Your task to perform on an android device: check storage Image 0: 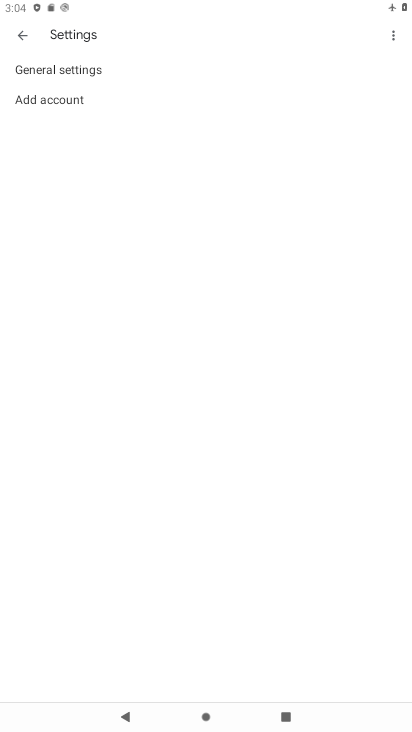
Step 0: press home button
Your task to perform on an android device: check storage Image 1: 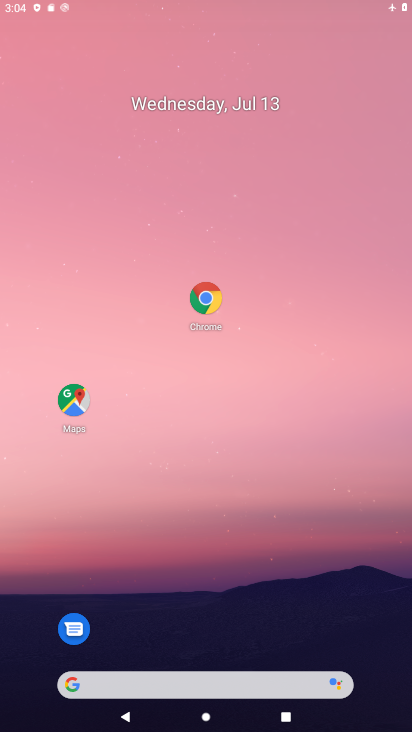
Step 1: drag from (116, 714) to (169, 213)
Your task to perform on an android device: check storage Image 2: 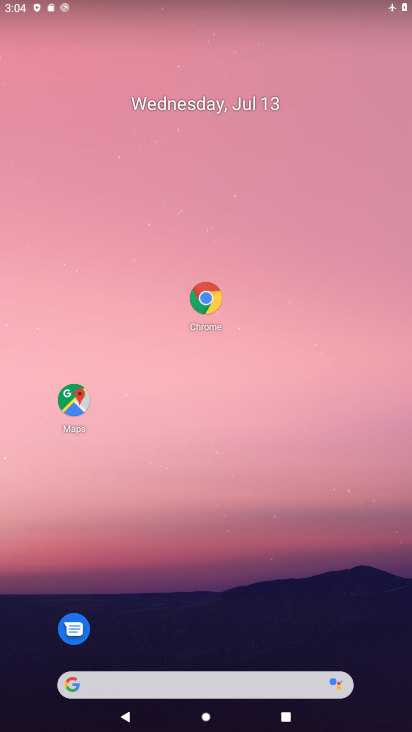
Step 2: drag from (196, 646) to (203, 119)
Your task to perform on an android device: check storage Image 3: 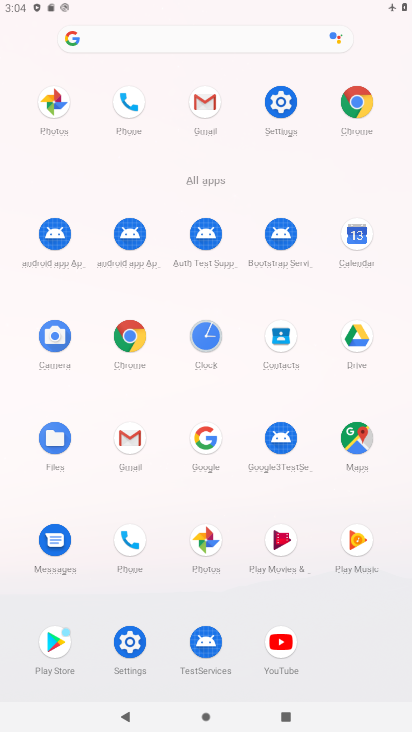
Step 3: click (290, 90)
Your task to perform on an android device: check storage Image 4: 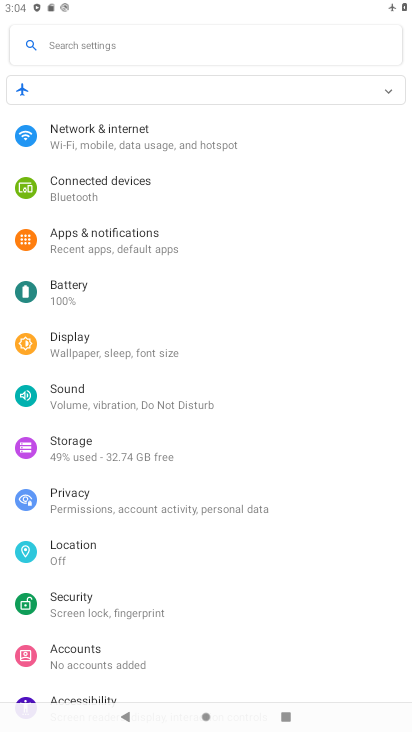
Step 4: click (101, 432)
Your task to perform on an android device: check storage Image 5: 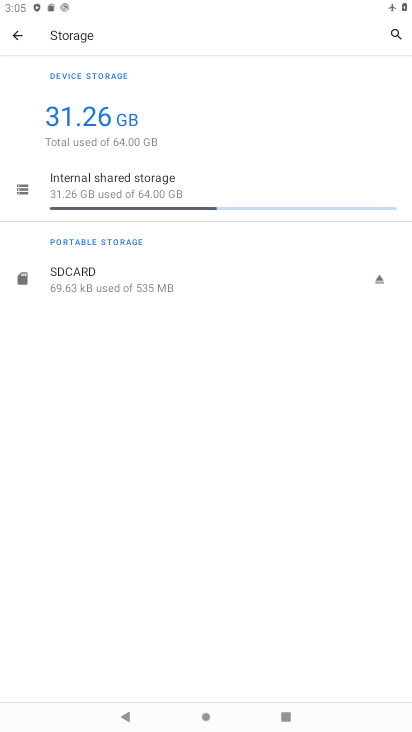
Step 5: task complete